Your task to perform on an android device: Open internet settings Image 0: 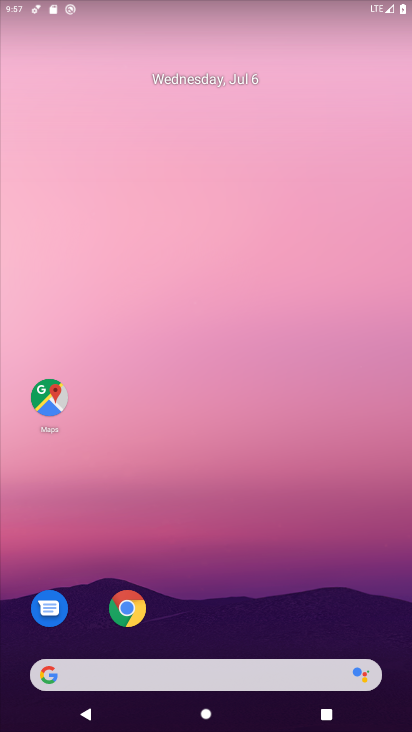
Step 0: drag from (239, 583) to (204, 5)
Your task to perform on an android device: Open internet settings Image 1: 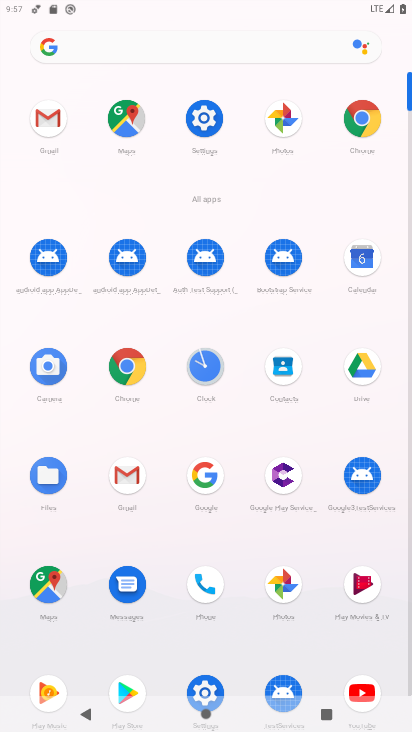
Step 1: click (200, 118)
Your task to perform on an android device: Open internet settings Image 2: 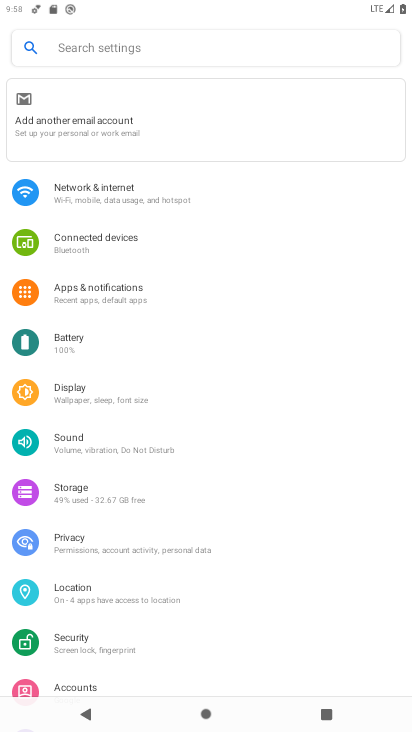
Step 2: click (137, 189)
Your task to perform on an android device: Open internet settings Image 3: 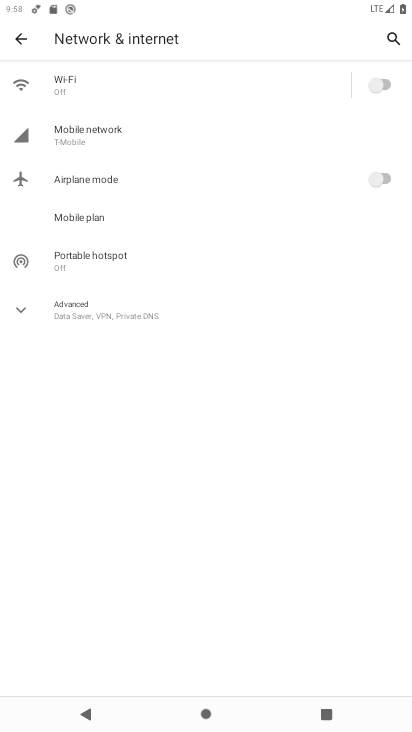
Step 3: task complete